Your task to perform on an android device: Go to internet settings Image 0: 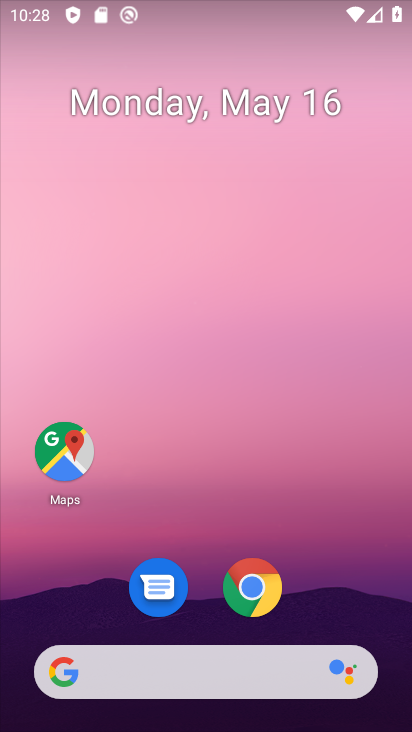
Step 0: drag from (384, 635) to (333, 67)
Your task to perform on an android device: Go to internet settings Image 1: 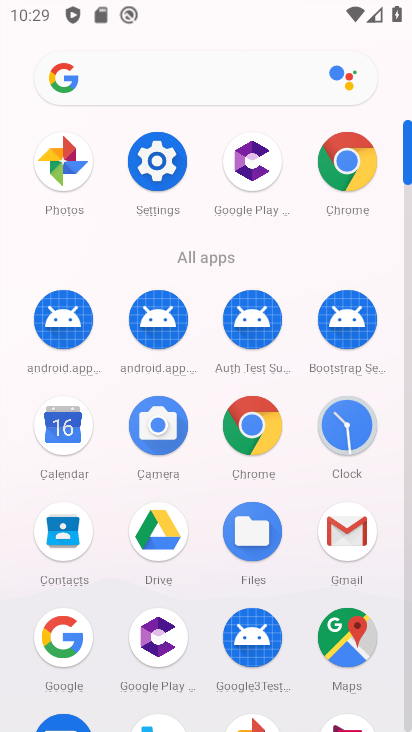
Step 1: click (165, 138)
Your task to perform on an android device: Go to internet settings Image 2: 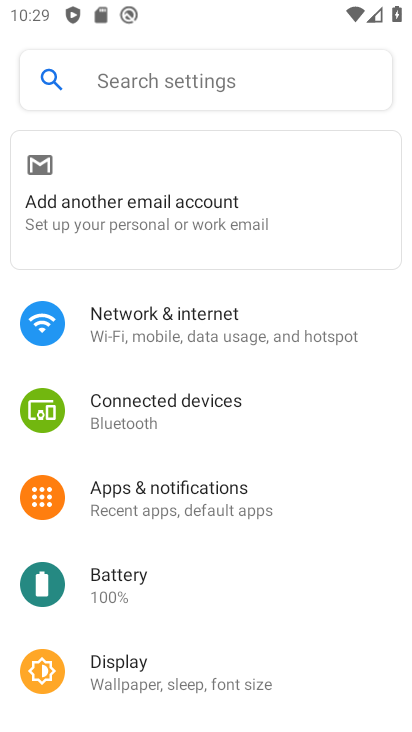
Step 2: click (147, 349)
Your task to perform on an android device: Go to internet settings Image 3: 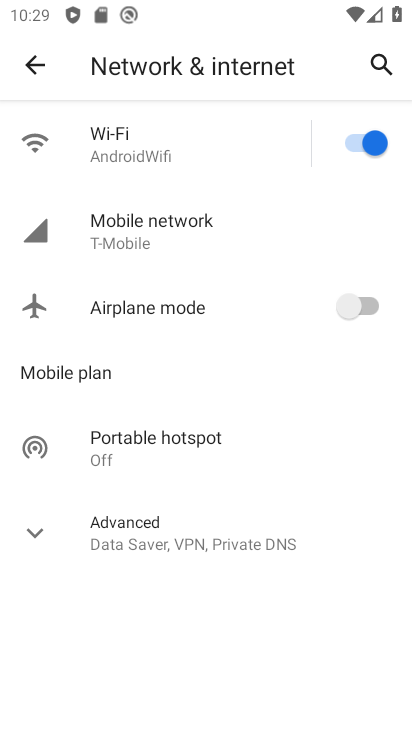
Step 3: task complete